Your task to perform on an android device: Open maps Image 0: 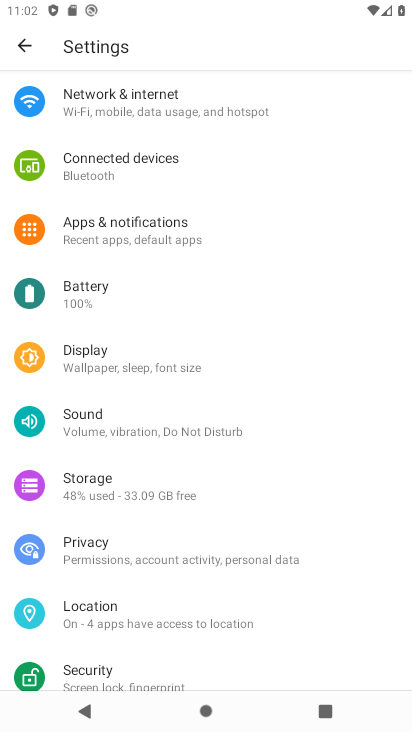
Step 0: press home button
Your task to perform on an android device: Open maps Image 1: 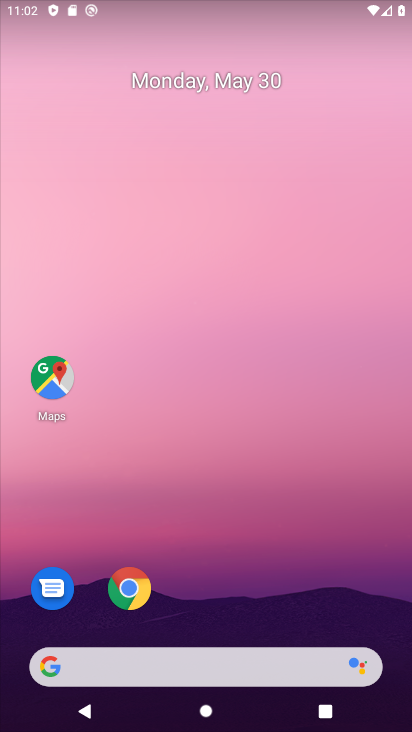
Step 1: click (49, 378)
Your task to perform on an android device: Open maps Image 2: 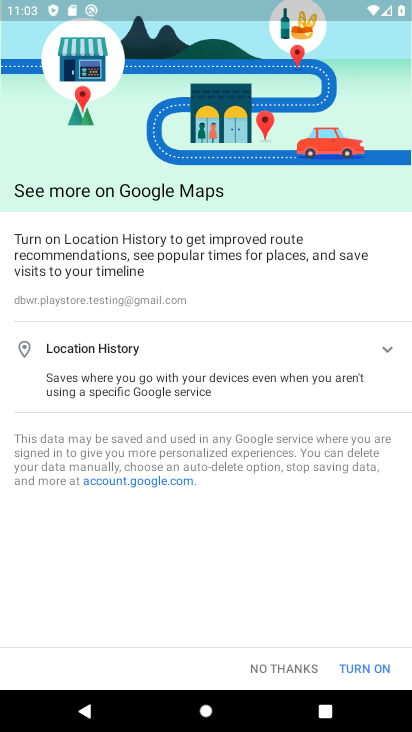
Step 2: click (362, 664)
Your task to perform on an android device: Open maps Image 3: 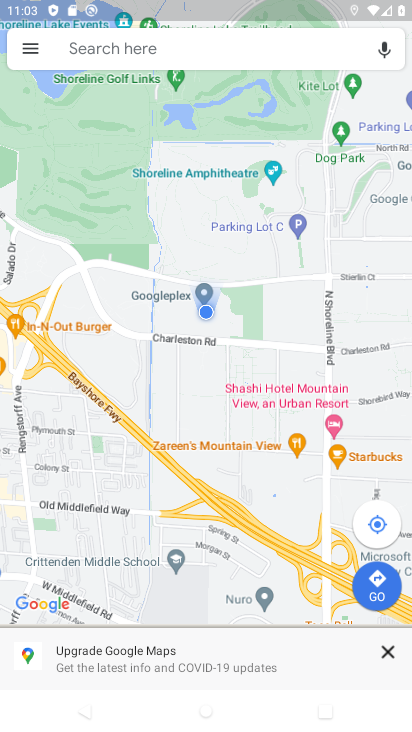
Step 3: task complete